Your task to perform on an android device: toggle wifi Image 0: 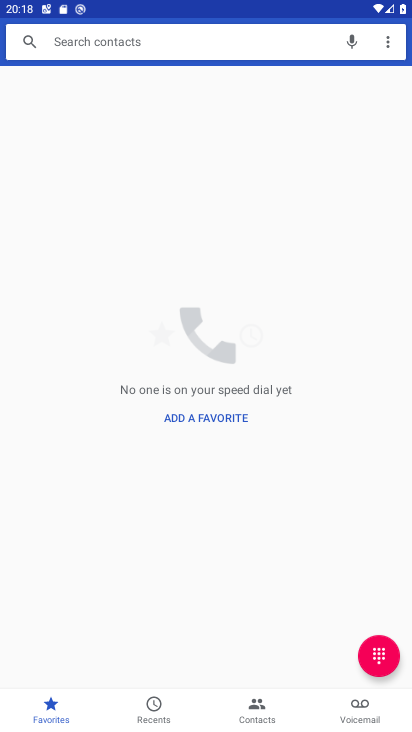
Step 0: press home button
Your task to perform on an android device: toggle wifi Image 1: 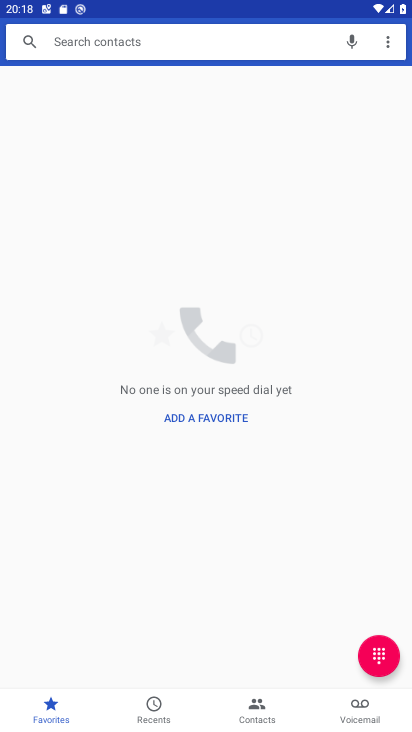
Step 1: press home button
Your task to perform on an android device: toggle wifi Image 2: 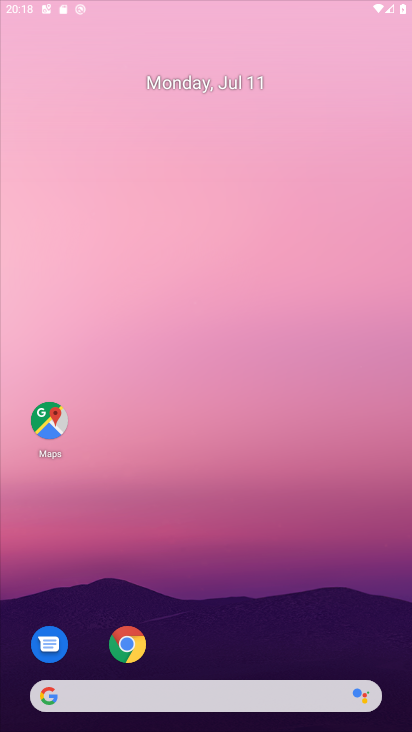
Step 2: press home button
Your task to perform on an android device: toggle wifi Image 3: 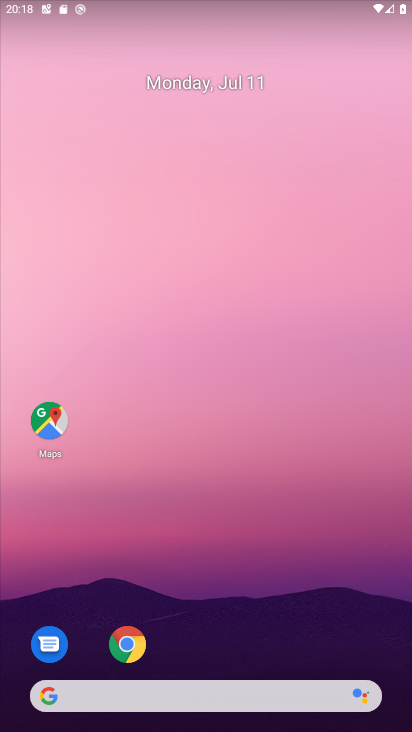
Step 3: drag from (194, 633) to (195, 212)
Your task to perform on an android device: toggle wifi Image 4: 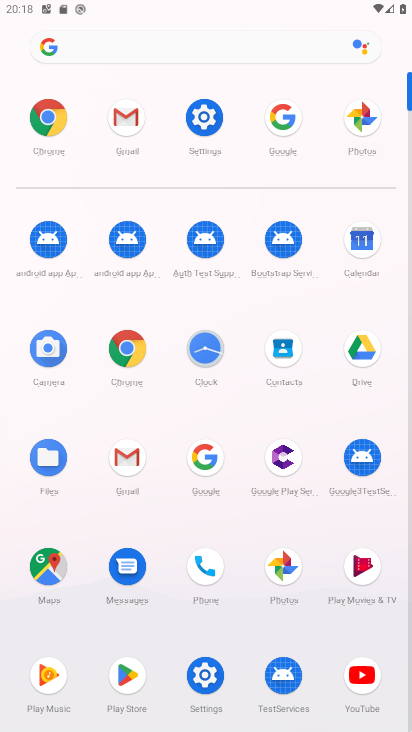
Step 4: click (197, 121)
Your task to perform on an android device: toggle wifi Image 5: 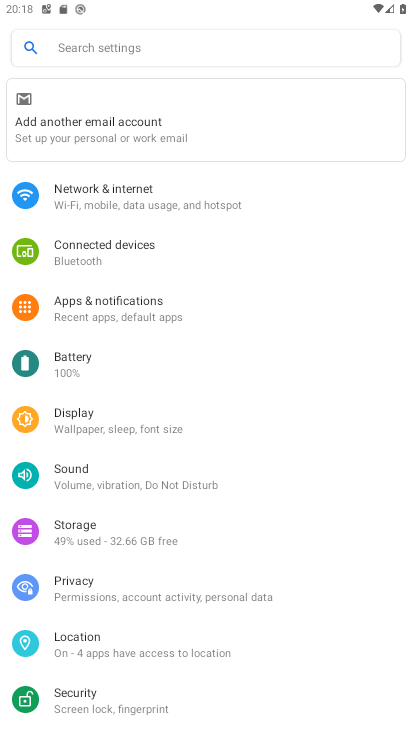
Step 5: click (167, 205)
Your task to perform on an android device: toggle wifi Image 6: 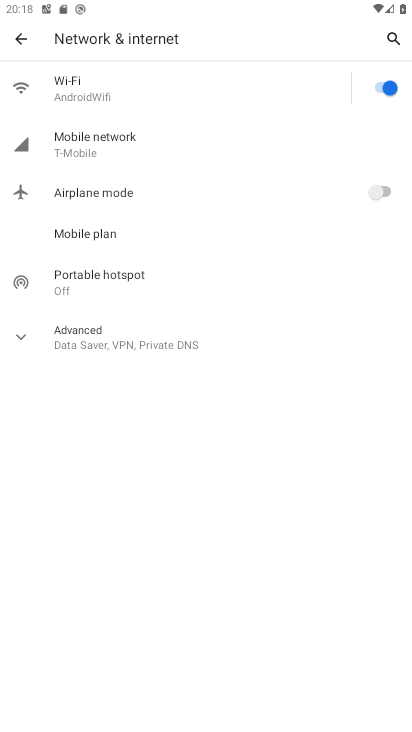
Step 6: click (390, 79)
Your task to perform on an android device: toggle wifi Image 7: 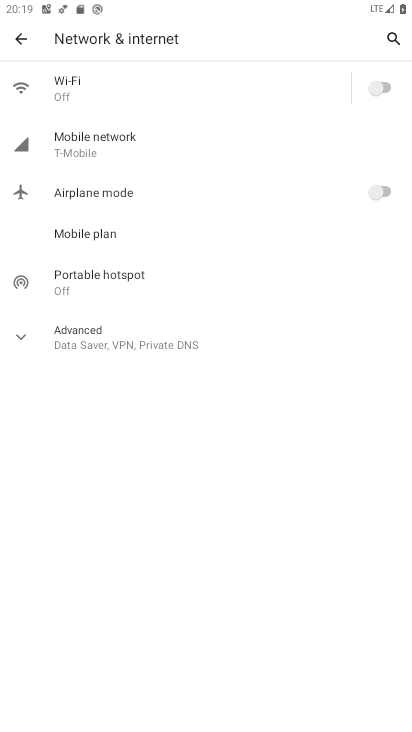
Step 7: task complete